Your task to perform on an android device: delete the emails in spam in the gmail app Image 0: 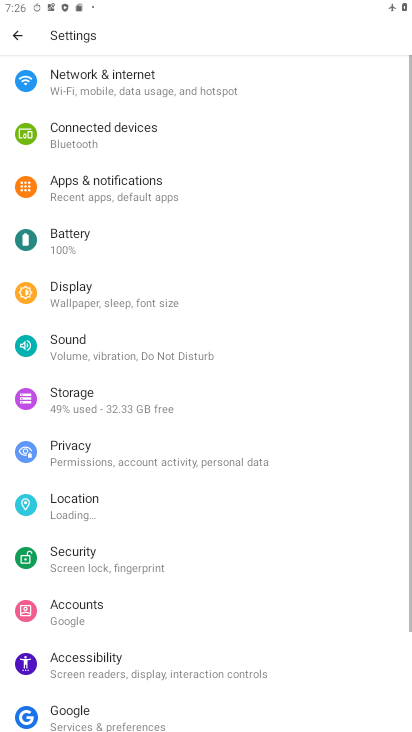
Step 0: press home button
Your task to perform on an android device: delete the emails in spam in the gmail app Image 1: 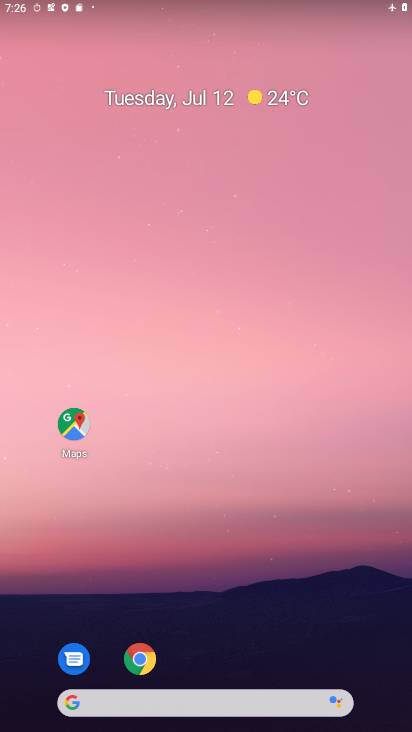
Step 1: drag from (371, 664) to (295, 203)
Your task to perform on an android device: delete the emails in spam in the gmail app Image 2: 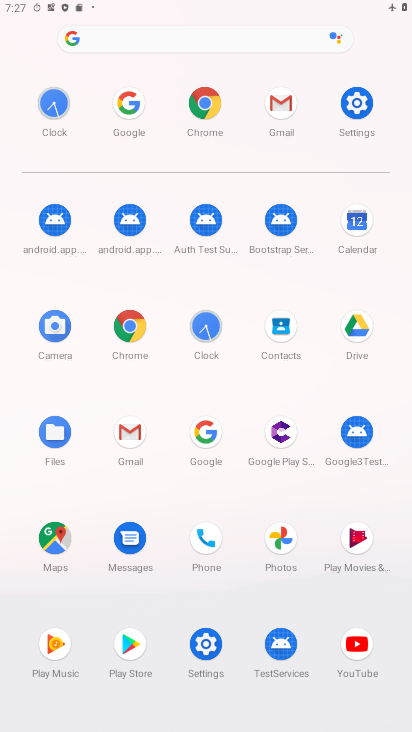
Step 2: click (135, 428)
Your task to perform on an android device: delete the emails in spam in the gmail app Image 3: 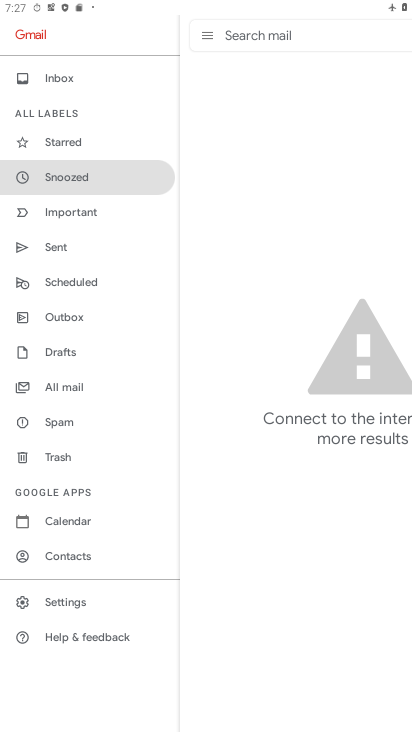
Step 3: task complete